Your task to perform on an android device: Search for pizza restaurants on Maps Image 0: 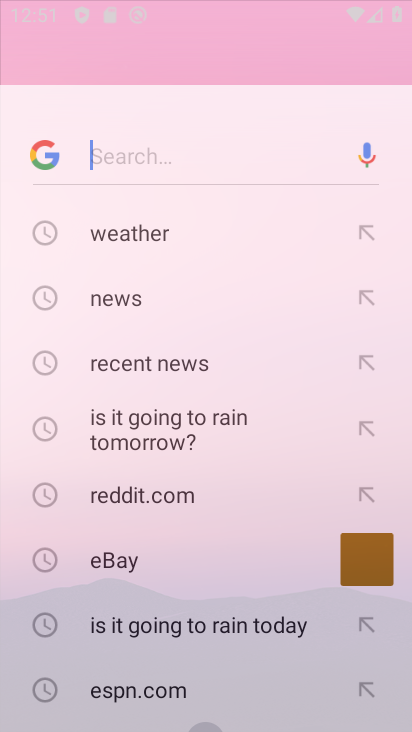
Step 0: click (203, 128)
Your task to perform on an android device: Search for pizza restaurants on Maps Image 1: 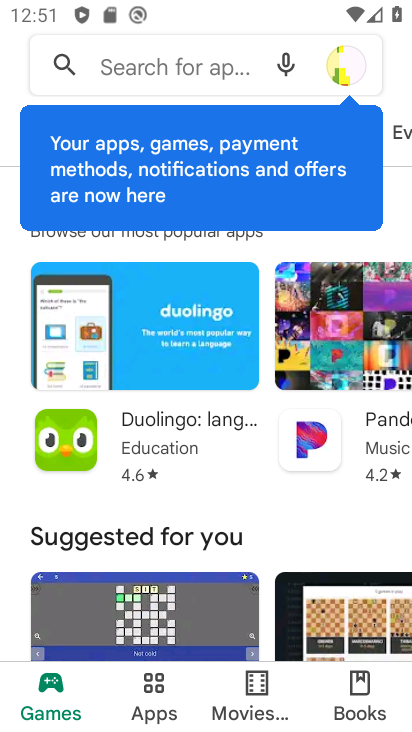
Step 1: press home button
Your task to perform on an android device: Search for pizza restaurants on Maps Image 2: 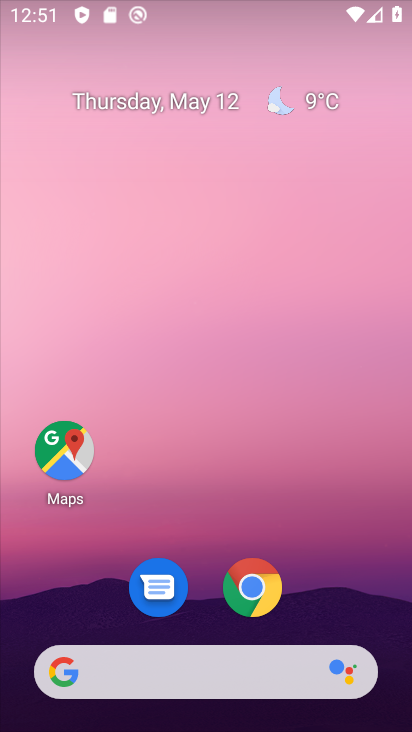
Step 2: drag from (223, 500) to (327, 1)
Your task to perform on an android device: Search for pizza restaurants on Maps Image 3: 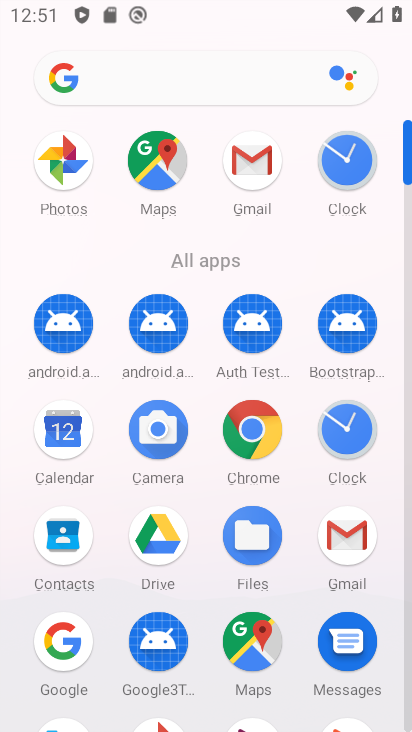
Step 3: drag from (218, 575) to (250, 296)
Your task to perform on an android device: Search for pizza restaurants on Maps Image 4: 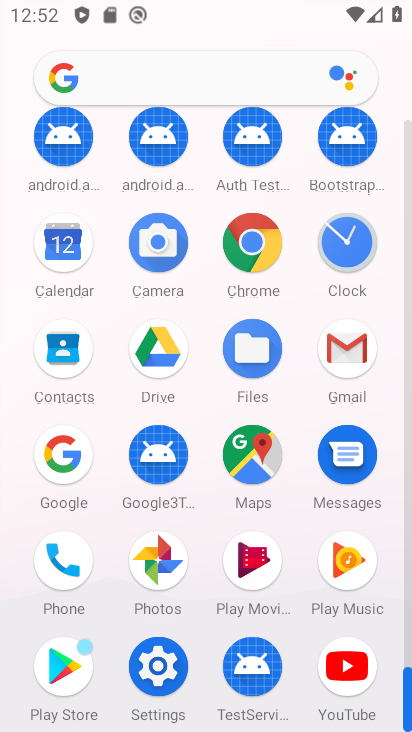
Step 4: click (263, 464)
Your task to perform on an android device: Search for pizza restaurants on Maps Image 5: 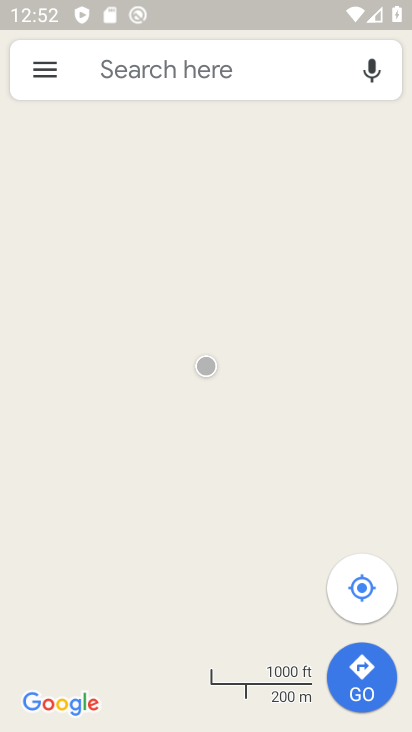
Step 5: click (215, 77)
Your task to perform on an android device: Search for pizza restaurants on Maps Image 6: 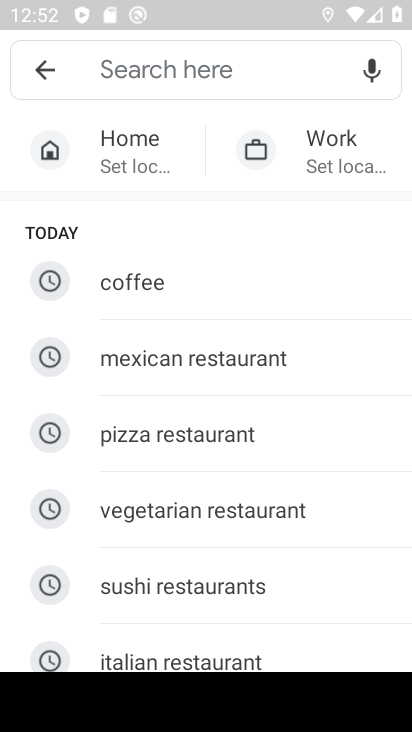
Step 6: type "pizza resta"
Your task to perform on an android device: Search for pizza restaurants on Maps Image 7: 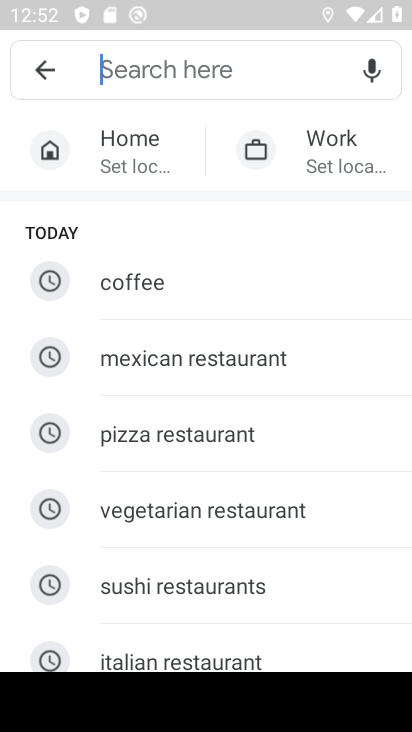
Step 7: click (234, 439)
Your task to perform on an android device: Search for pizza restaurants on Maps Image 8: 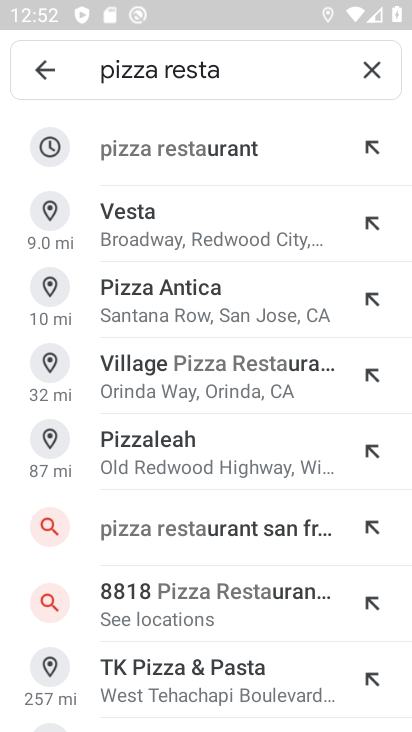
Step 8: click (212, 147)
Your task to perform on an android device: Search for pizza restaurants on Maps Image 9: 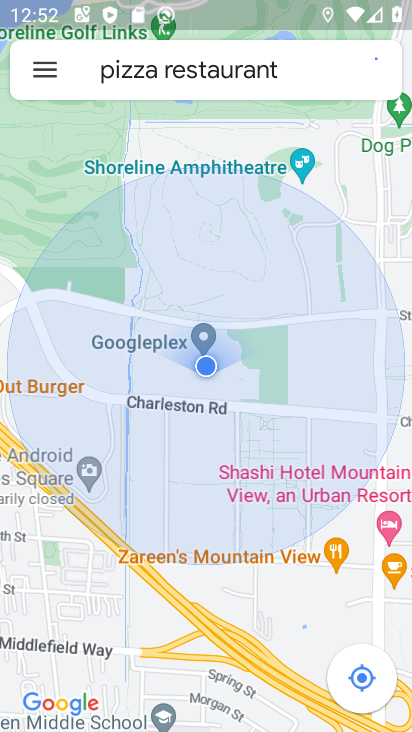
Step 9: task complete